Your task to perform on an android device: see creations saved in the google photos Image 0: 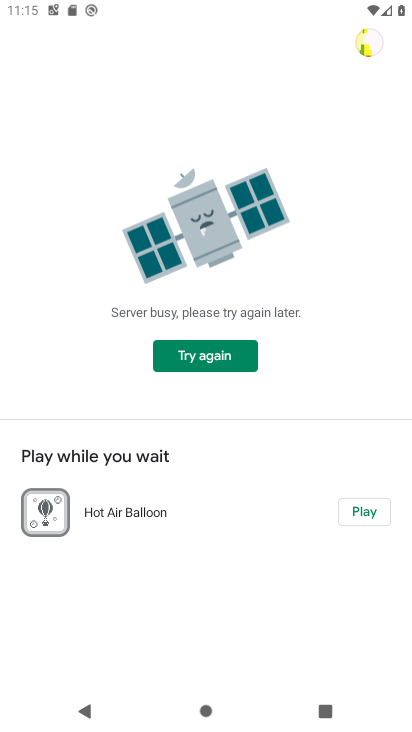
Step 0: press home button
Your task to perform on an android device: see creations saved in the google photos Image 1: 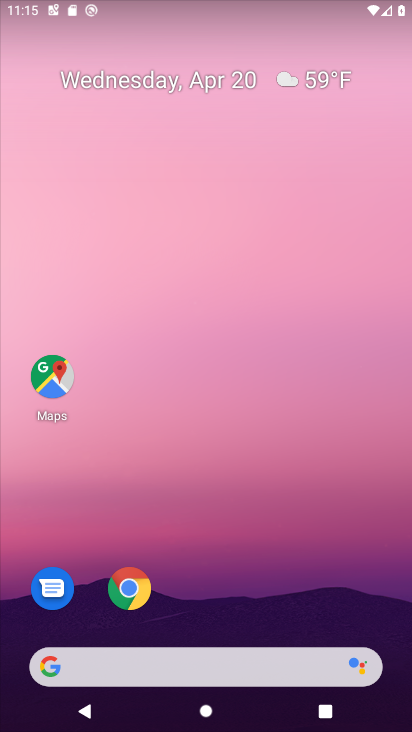
Step 1: drag from (227, 620) to (225, 88)
Your task to perform on an android device: see creations saved in the google photos Image 2: 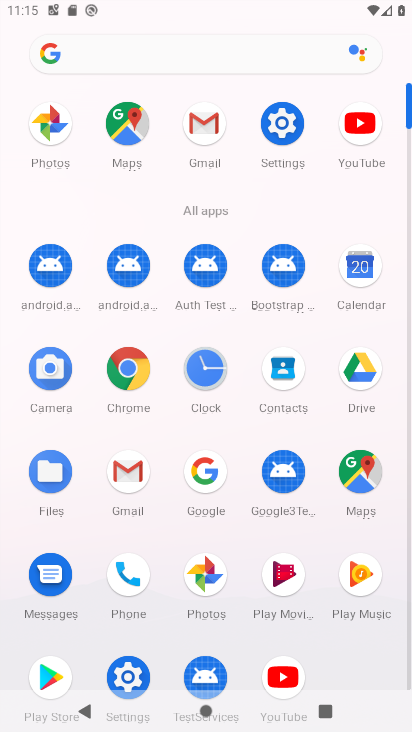
Step 2: click (222, 577)
Your task to perform on an android device: see creations saved in the google photos Image 3: 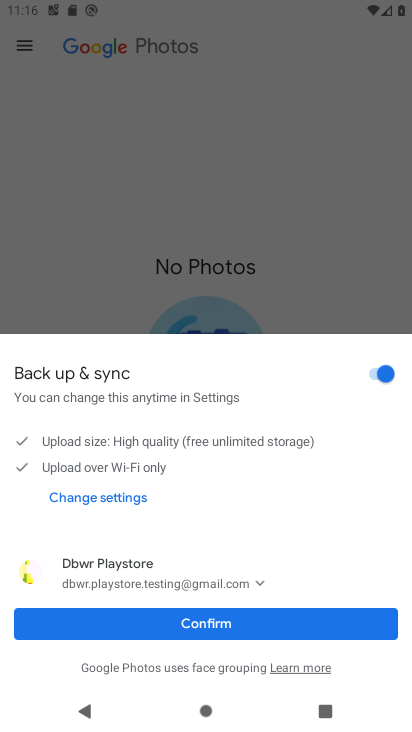
Step 3: click (203, 618)
Your task to perform on an android device: see creations saved in the google photos Image 4: 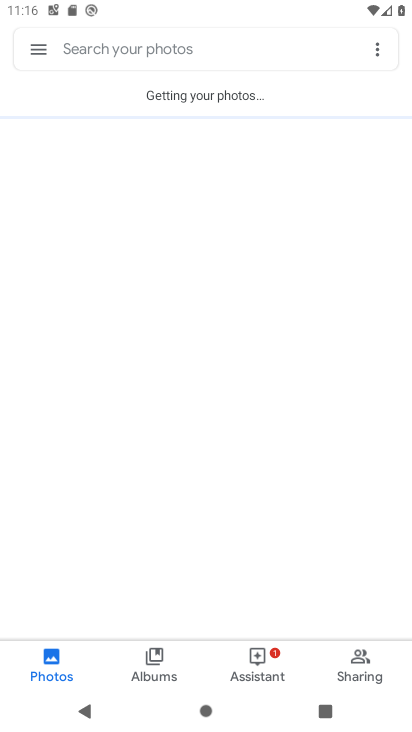
Step 4: click (44, 54)
Your task to perform on an android device: see creations saved in the google photos Image 5: 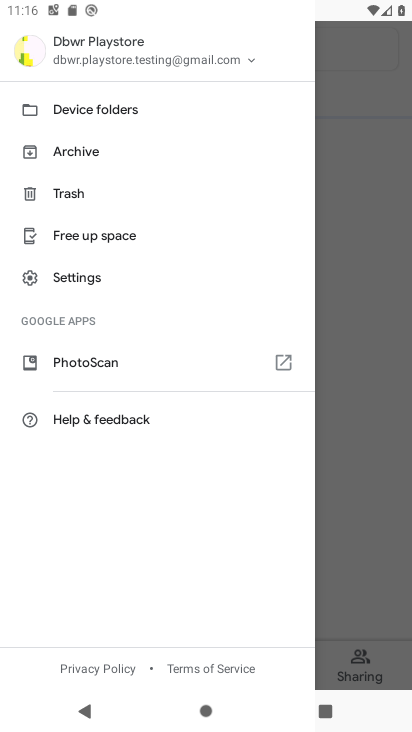
Step 5: click (88, 282)
Your task to perform on an android device: see creations saved in the google photos Image 6: 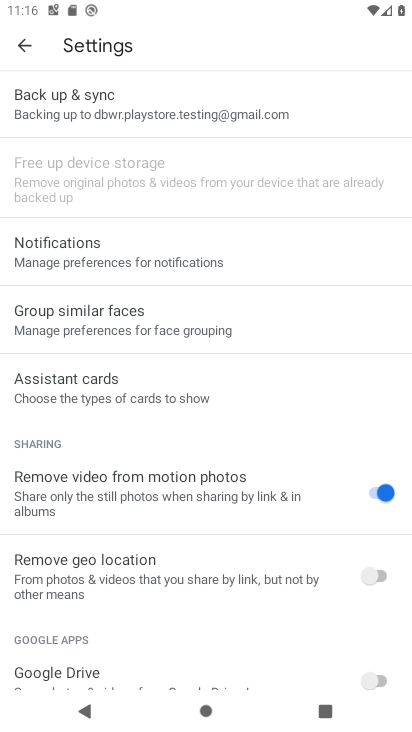
Step 6: task complete